Your task to perform on an android device: change text size in settings app Image 0: 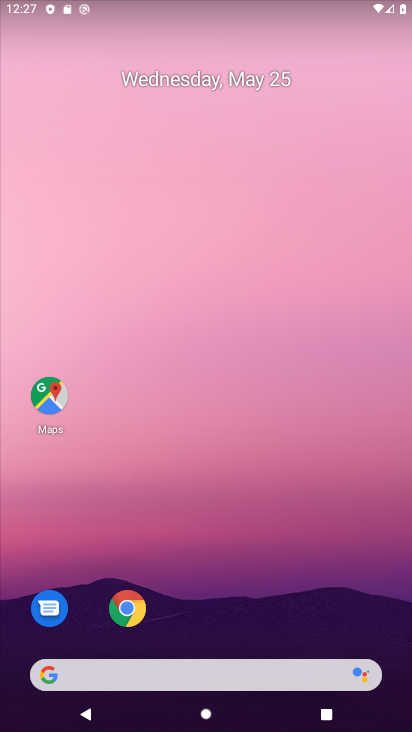
Step 0: drag from (148, 685) to (166, 31)
Your task to perform on an android device: change text size in settings app Image 1: 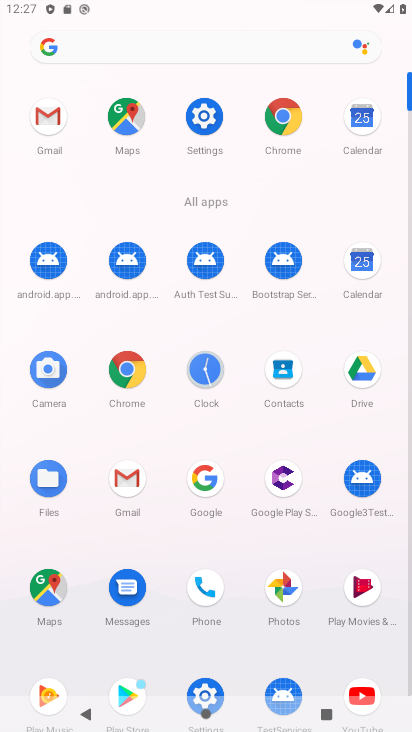
Step 1: click (202, 125)
Your task to perform on an android device: change text size in settings app Image 2: 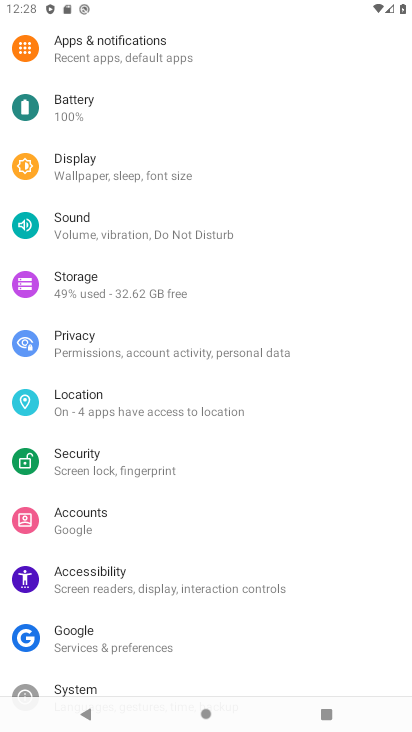
Step 2: click (103, 172)
Your task to perform on an android device: change text size in settings app Image 3: 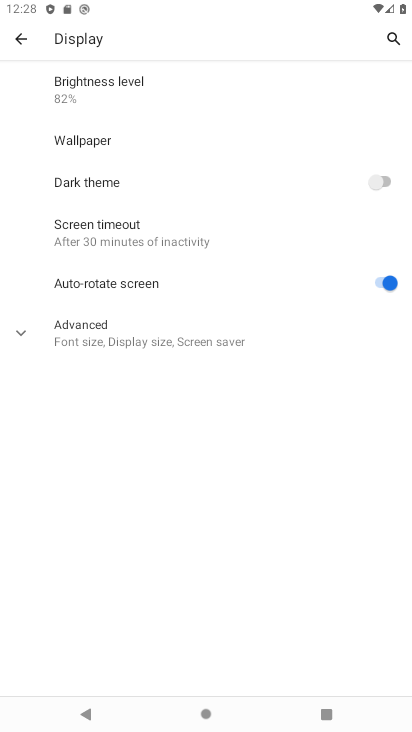
Step 3: click (114, 349)
Your task to perform on an android device: change text size in settings app Image 4: 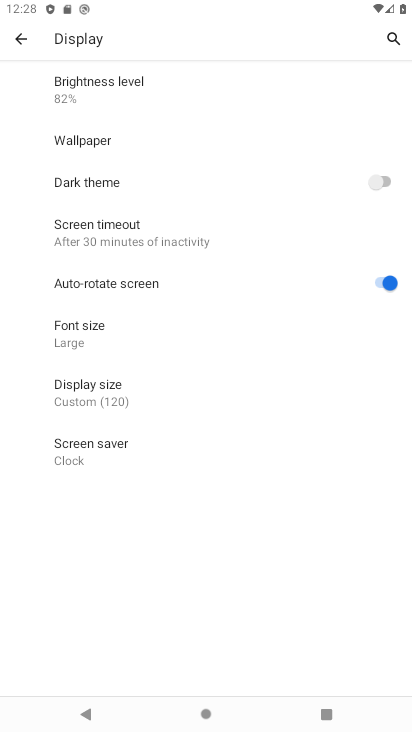
Step 4: click (96, 345)
Your task to perform on an android device: change text size in settings app Image 5: 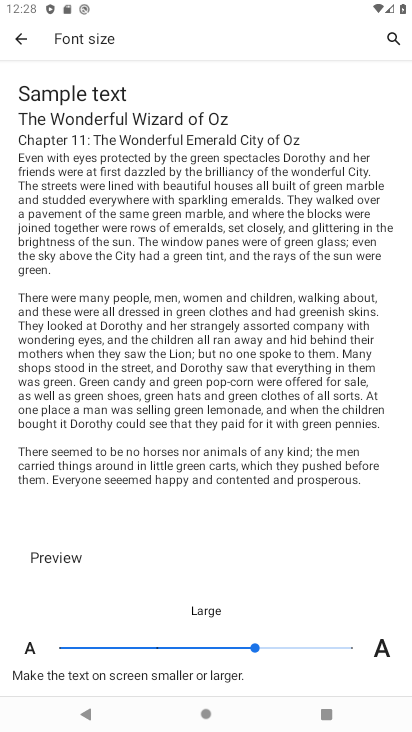
Step 5: click (58, 645)
Your task to perform on an android device: change text size in settings app Image 6: 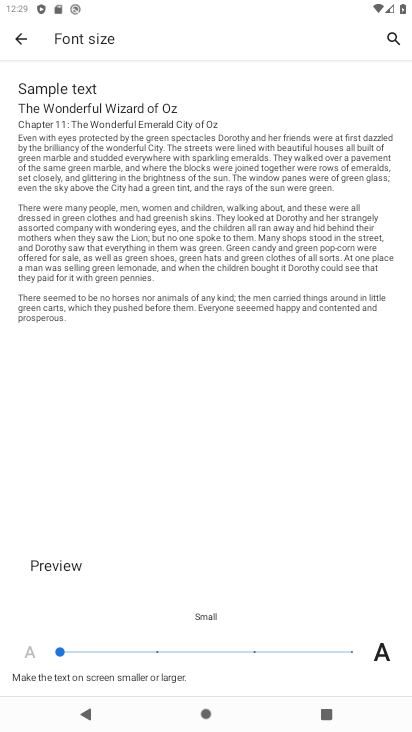
Step 6: task complete